Your task to perform on an android device: Open display settings Image 0: 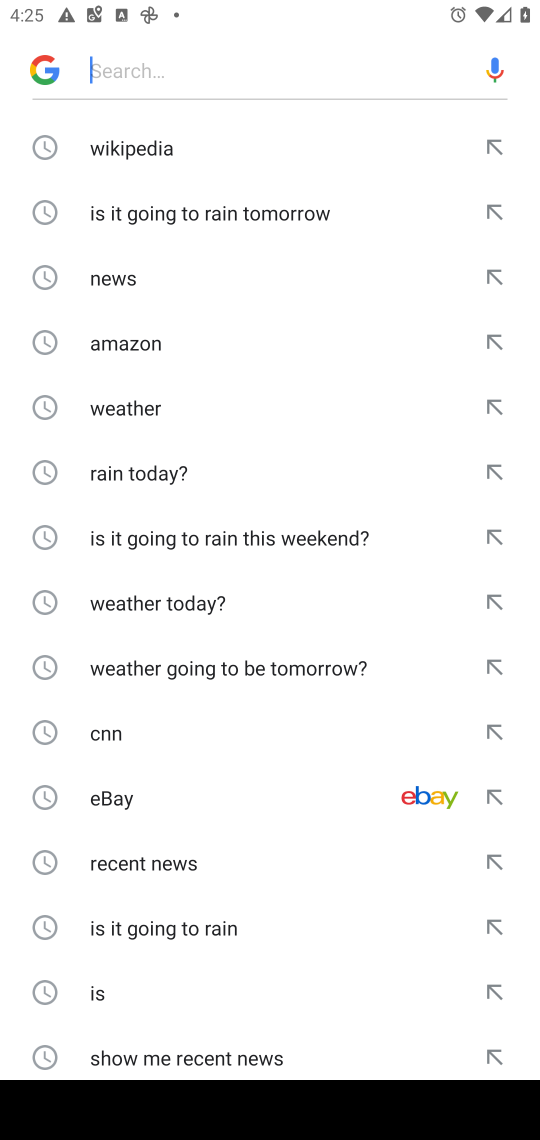
Step 0: press home button
Your task to perform on an android device: Open display settings Image 1: 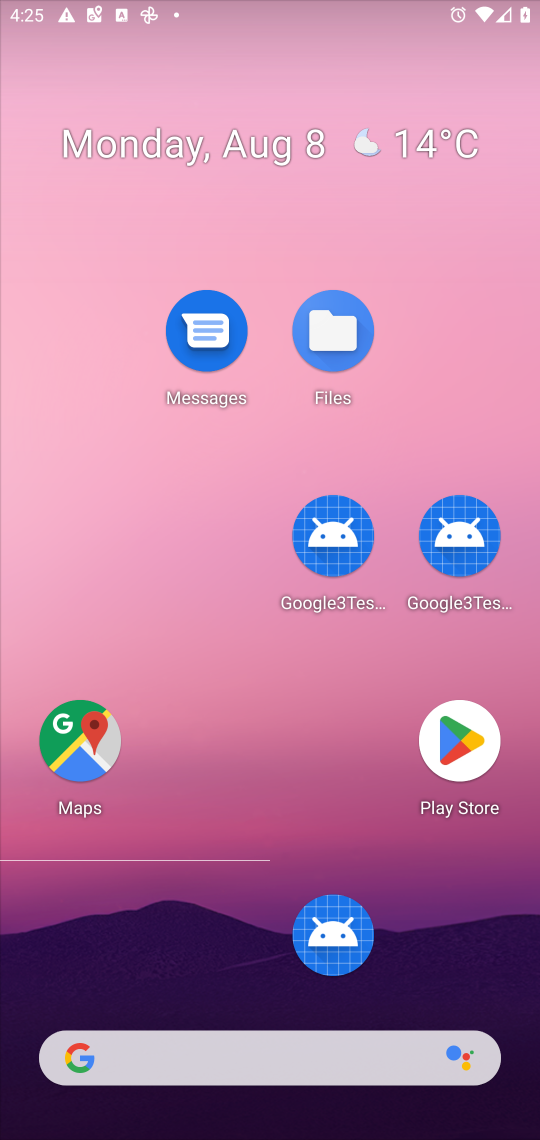
Step 1: drag from (228, 1056) to (260, 235)
Your task to perform on an android device: Open display settings Image 2: 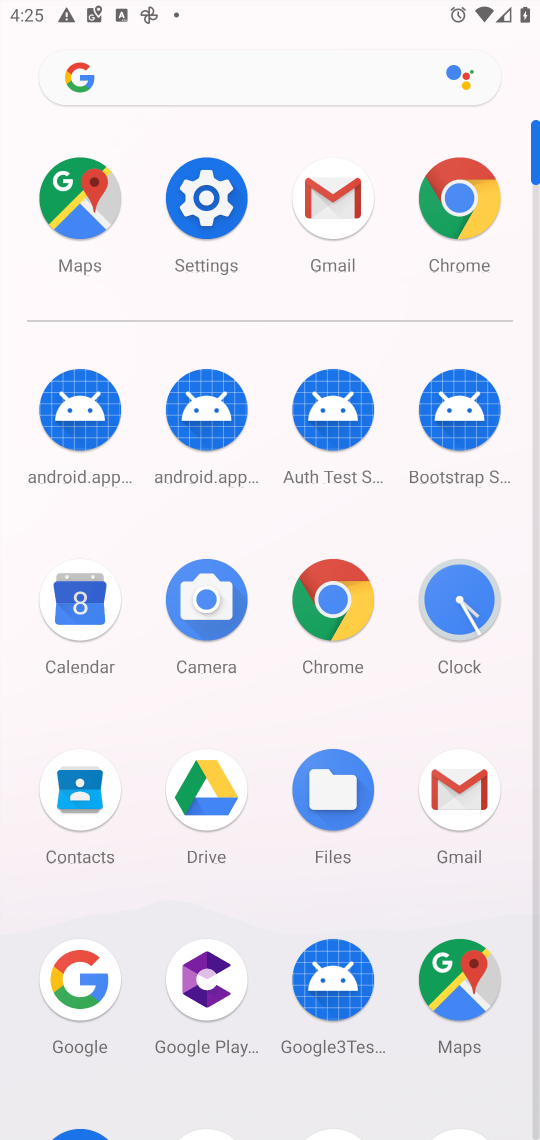
Step 2: click (205, 206)
Your task to perform on an android device: Open display settings Image 3: 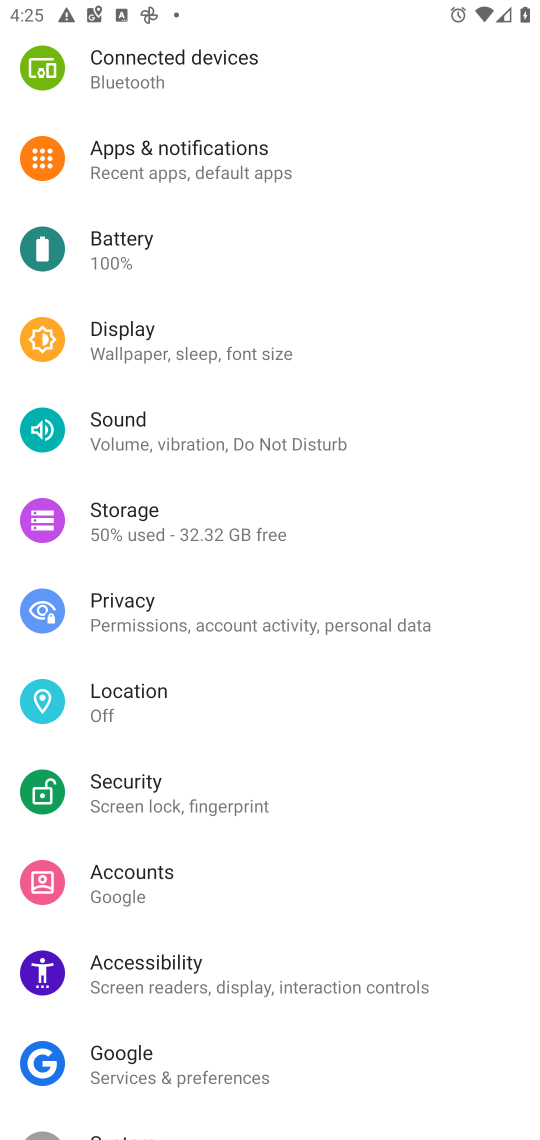
Step 3: click (138, 313)
Your task to perform on an android device: Open display settings Image 4: 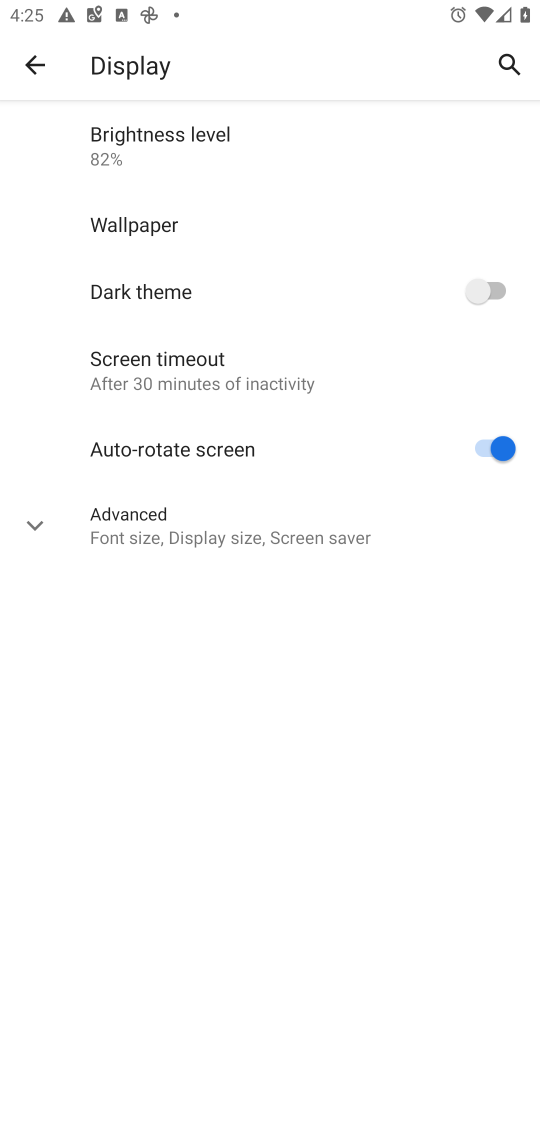
Step 4: task complete